Your task to perform on an android device: Open Reddit.com Image 0: 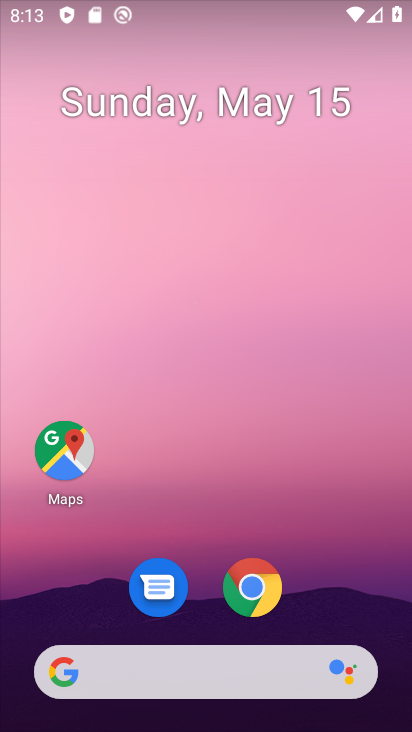
Step 0: drag from (338, 604) to (297, 24)
Your task to perform on an android device: Open Reddit.com Image 1: 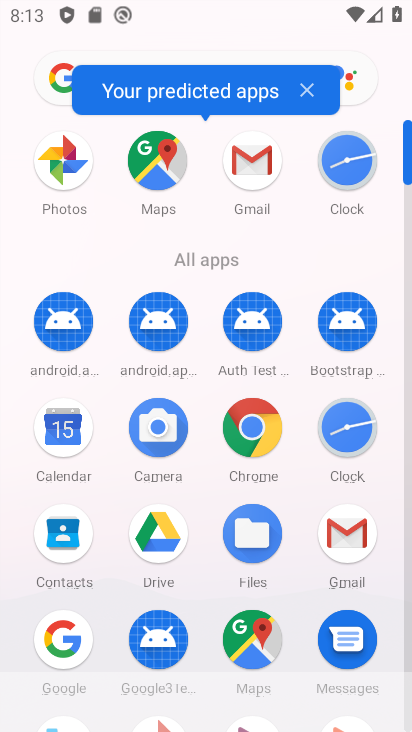
Step 1: click (261, 427)
Your task to perform on an android device: Open Reddit.com Image 2: 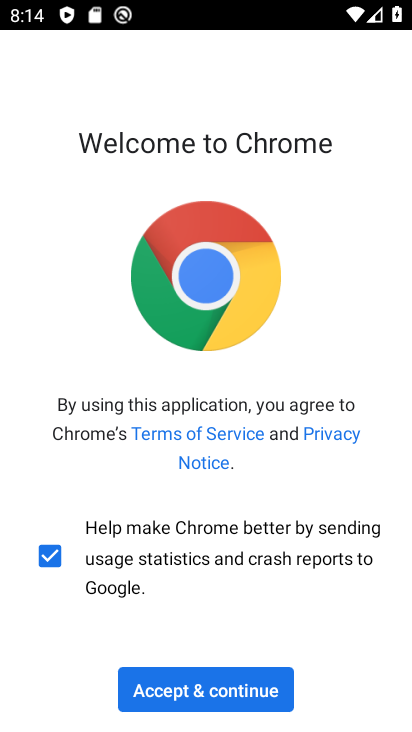
Step 2: click (228, 695)
Your task to perform on an android device: Open Reddit.com Image 3: 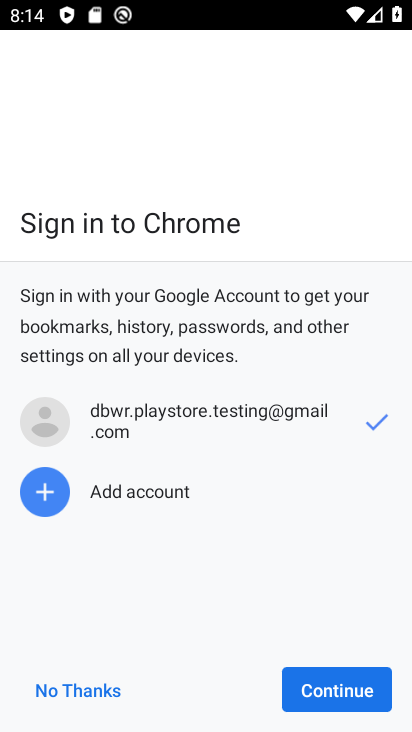
Step 3: click (288, 695)
Your task to perform on an android device: Open Reddit.com Image 4: 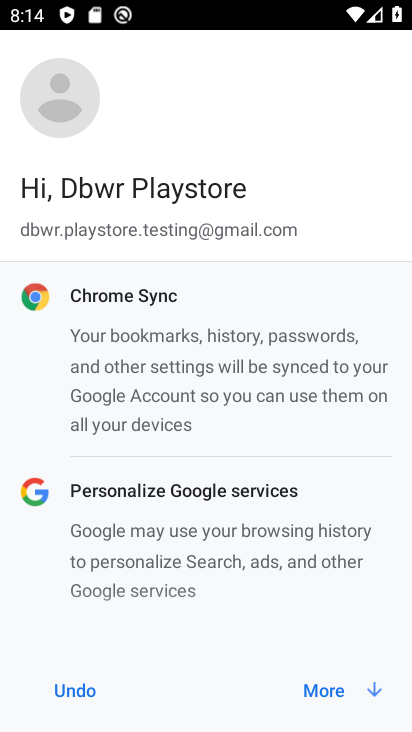
Step 4: click (315, 695)
Your task to perform on an android device: Open Reddit.com Image 5: 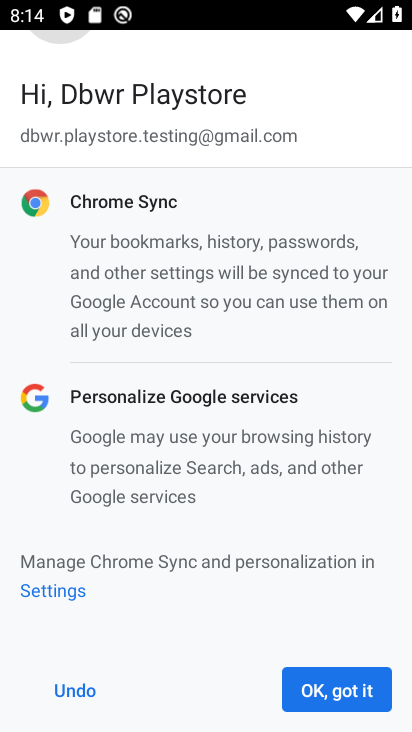
Step 5: click (315, 695)
Your task to perform on an android device: Open Reddit.com Image 6: 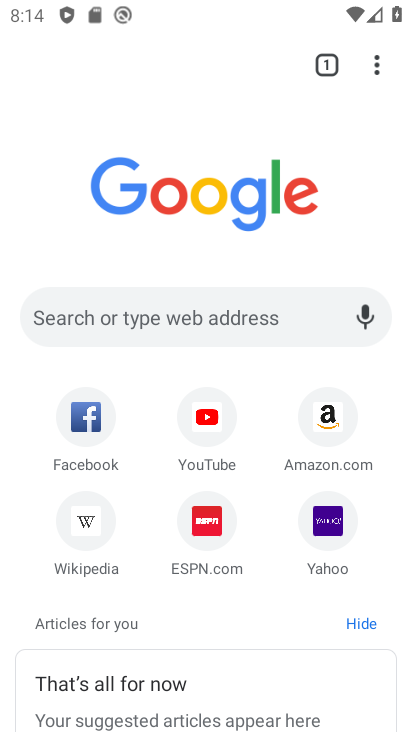
Step 6: click (191, 316)
Your task to perform on an android device: Open Reddit.com Image 7: 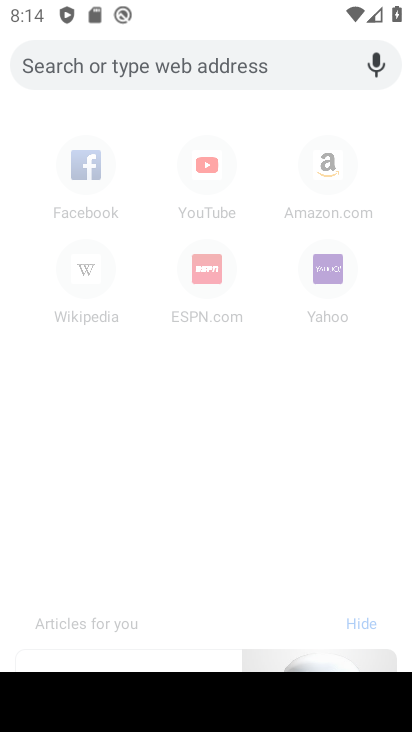
Step 7: type "reddit.com"
Your task to perform on an android device: Open Reddit.com Image 8: 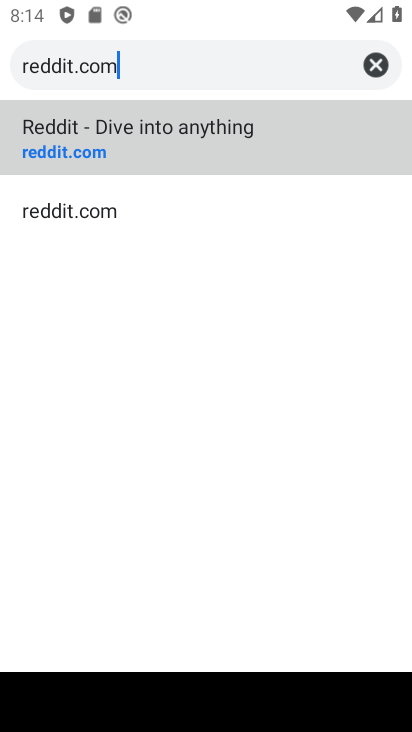
Step 8: click (187, 153)
Your task to perform on an android device: Open Reddit.com Image 9: 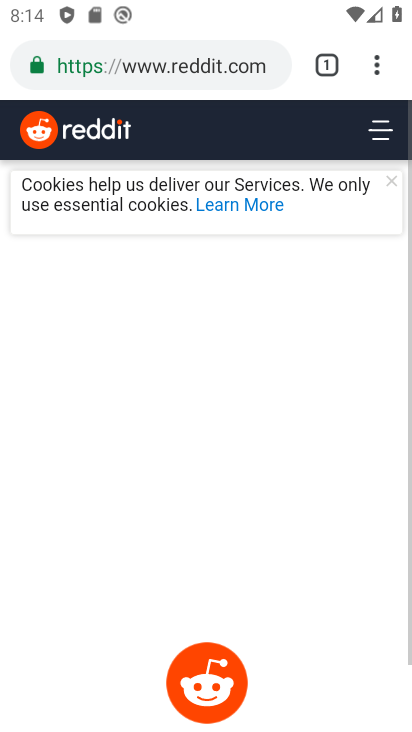
Step 9: task complete